Your task to perform on an android device: Toggle the flashlight Image 0: 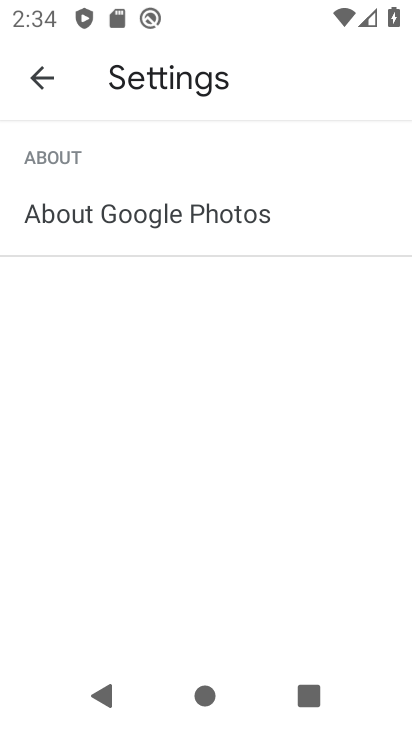
Step 0: press home button
Your task to perform on an android device: Toggle the flashlight Image 1: 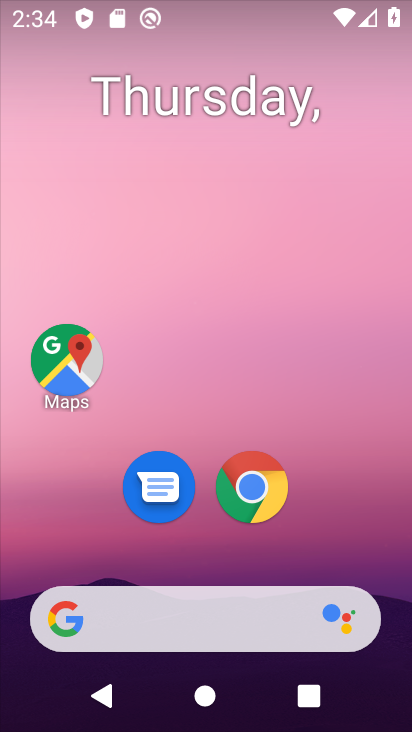
Step 1: drag from (403, 461) to (399, 112)
Your task to perform on an android device: Toggle the flashlight Image 2: 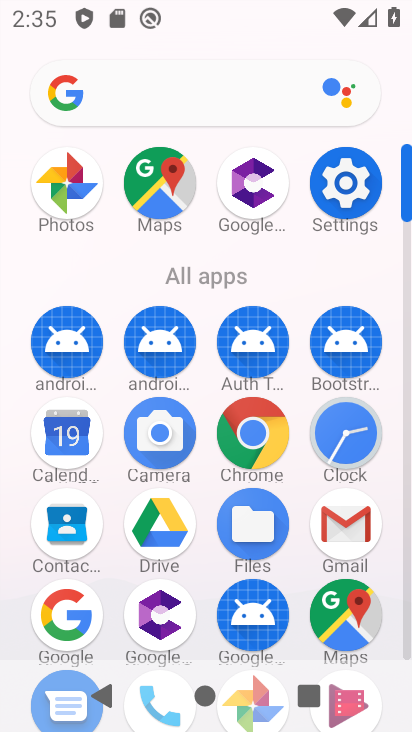
Step 2: click (356, 201)
Your task to perform on an android device: Toggle the flashlight Image 3: 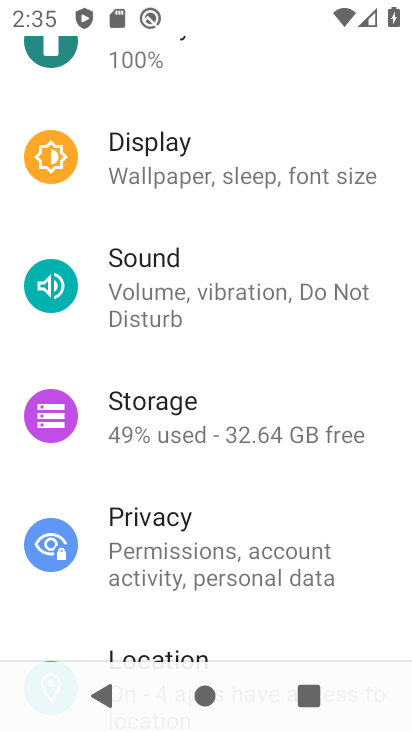
Step 3: task complete